Your task to perform on an android device: change notifications settings Image 0: 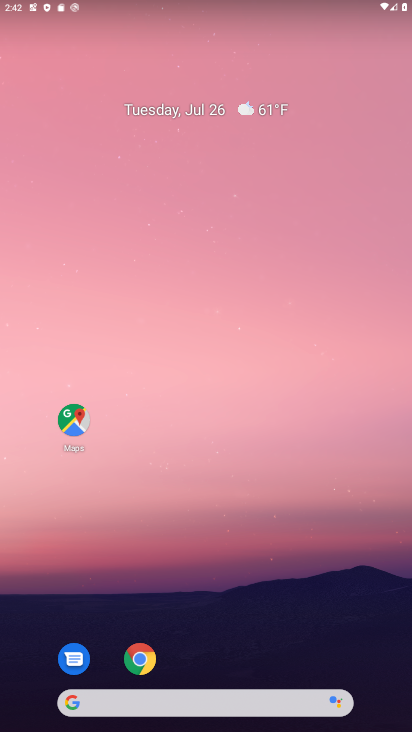
Step 0: drag from (200, 414) to (227, 15)
Your task to perform on an android device: change notifications settings Image 1: 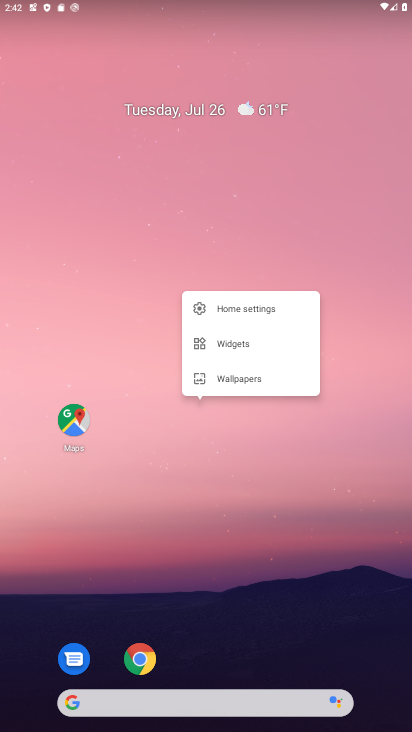
Step 1: click (217, 624)
Your task to perform on an android device: change notifications settings Image 2: 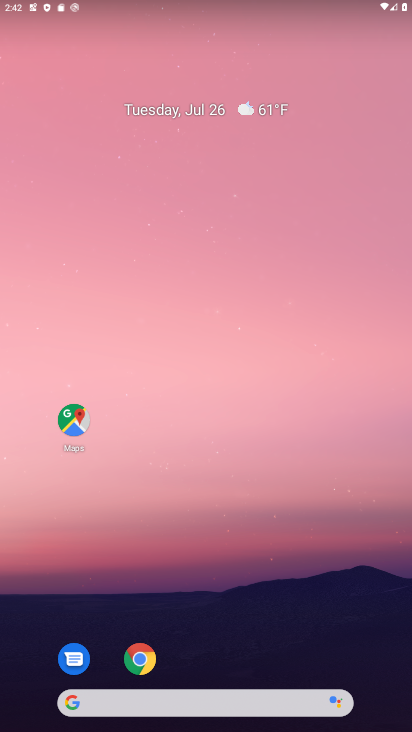
Step 2: drag from (217, 585) to (184, 118)
Your task to perform on an android device: change notifications settings Image 3: 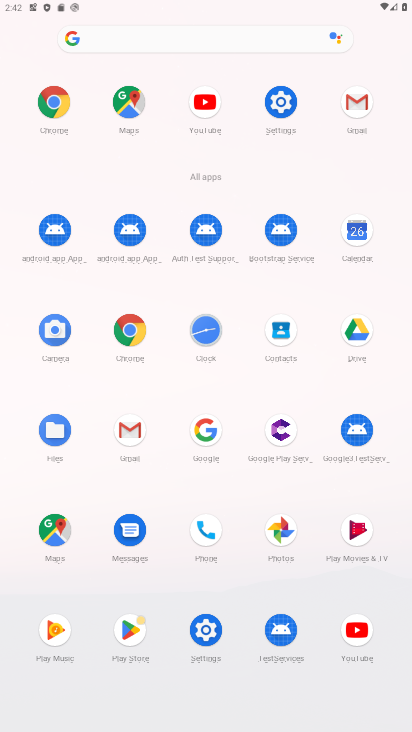
Step 3: click (283, 125)
Your task to perform on an android device: change notifications settings Image 4: 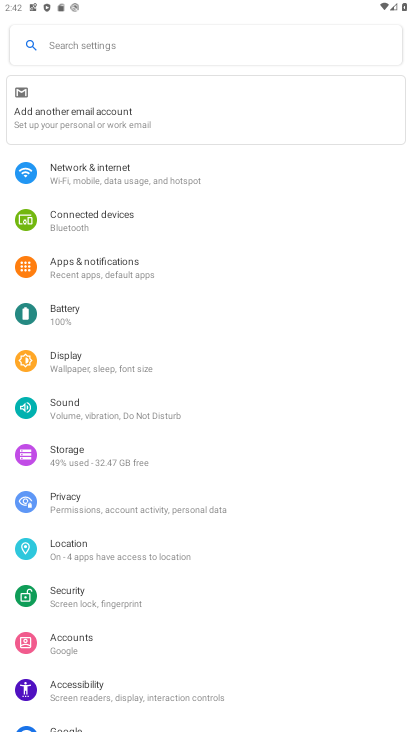
Step 4: drag from (120, 651) to (120, 327)
Your task to perform on an android device: change notifications settings Image 5: 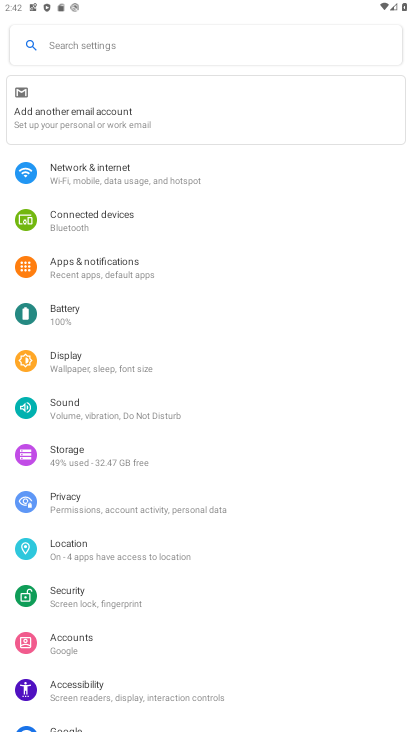
Step 5: click (94, 259)
Your task to perform on an android device: change notifications settings Image 6: 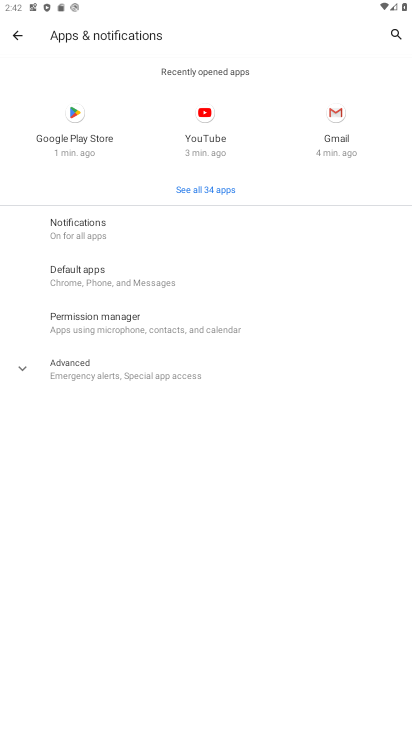
Step 6: click (72, 240)
Your task to perform on an android device: change notifications settings Image 7: 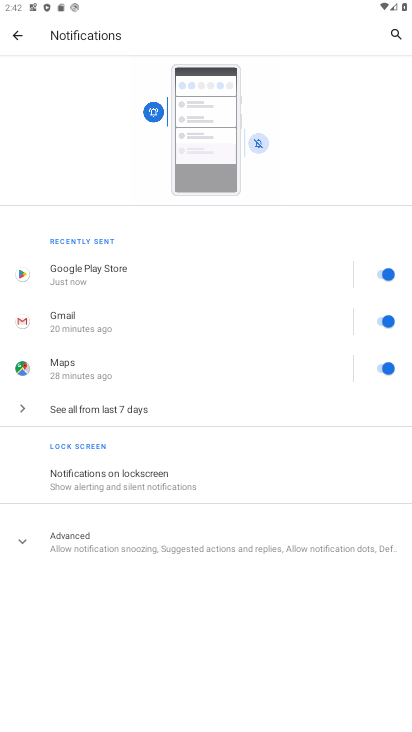
Step 7: click (137, 480)
Your task to perform on an android device: change notifications settings Image 8: 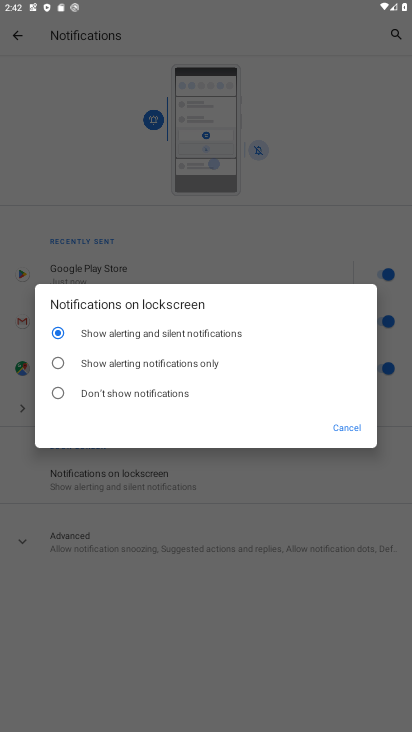
Step 8: click (58, 390)
Your task to perform on an android device: change notifications settings Image 9: 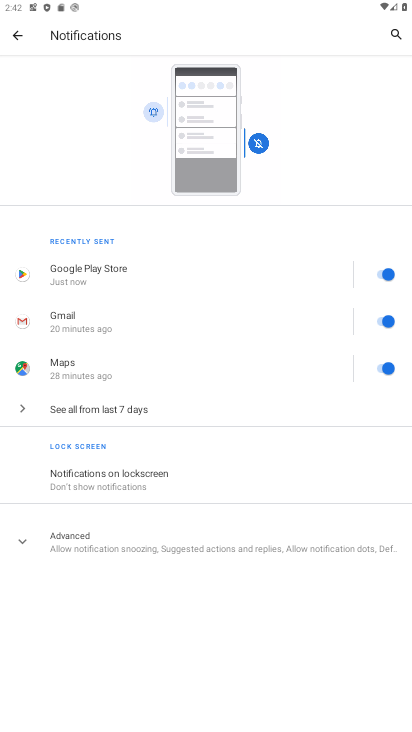
Step 9: task complete